Your task to perform on an android device: find snoozed emails in the gmail app Image 0: 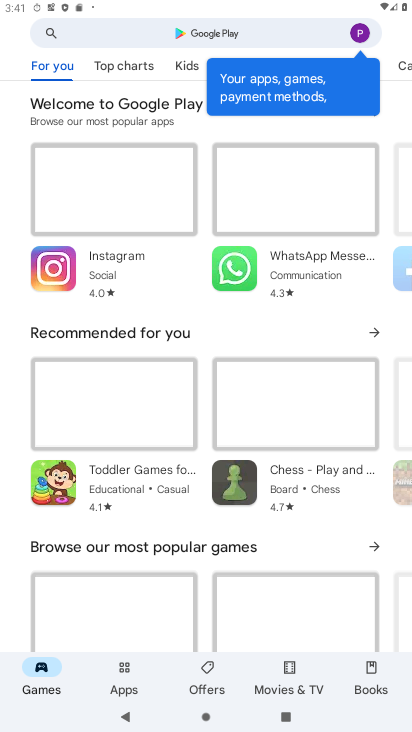
Step 0: press home button
Your task to perform on an android device: find snoozed emails in the gmail app Image 1: 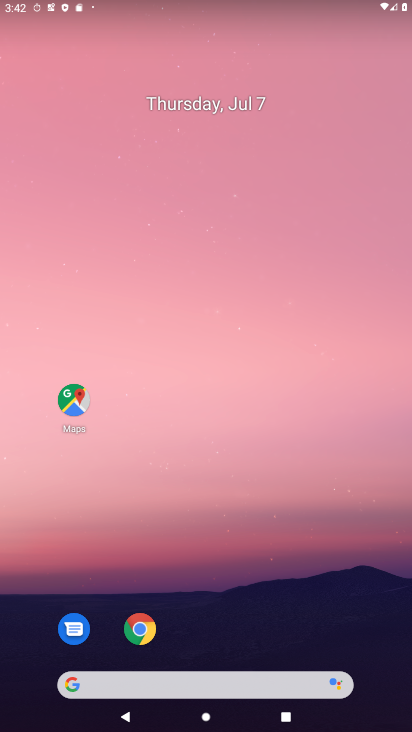
Step 1: drag from (263, 614) to (198, 80)
Your task to perform on an android device: find snoozed emails in the gmail app Image 2: 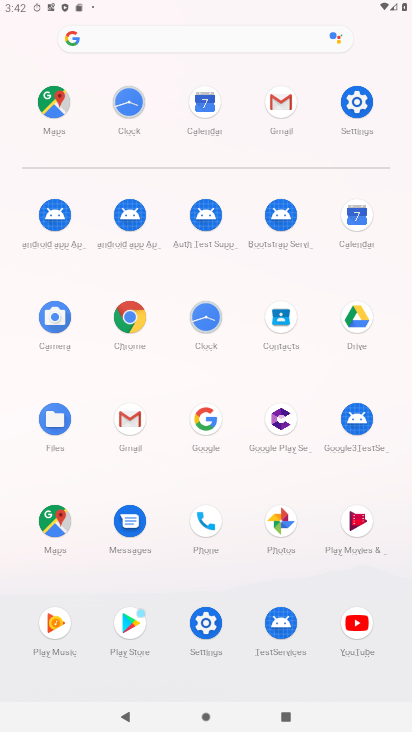
Step 2: click (276, 109)
Your task to perform on an android device: find snoozed emails in the gmail app Image 3: 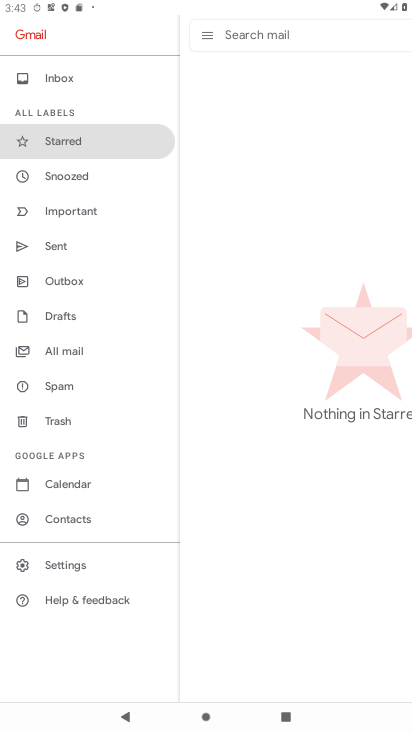
Step 3: click (59, 181)
Your task to perform on an android device: find snoozed emails in the gmail app Image 4: 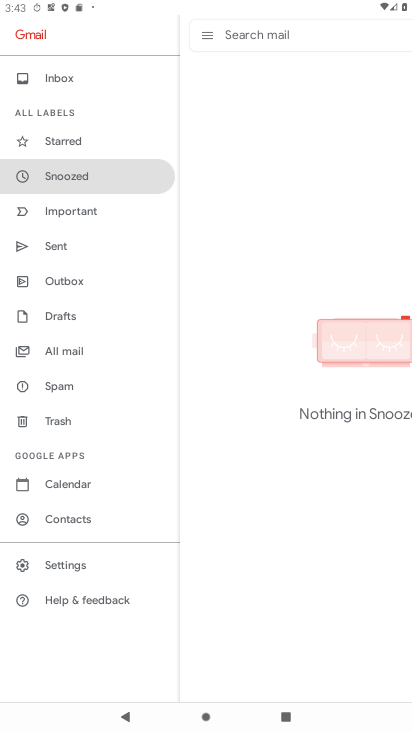
Step 4: task complete